Your task to perform on an android device: turn on bluetooth scan Image 0: 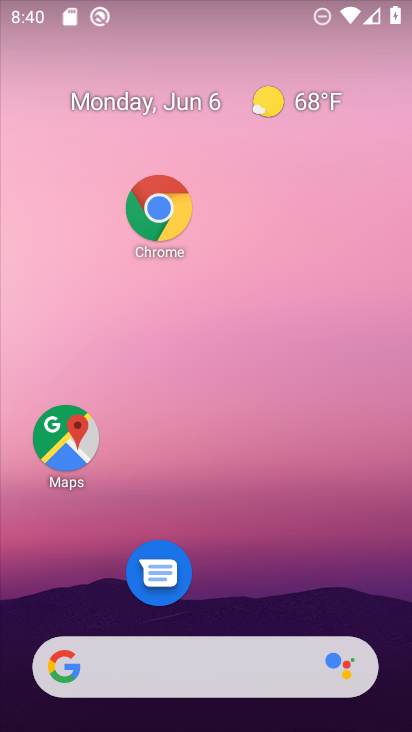
Step 0: drag from (257, 455) to (224, 240)
Your task to perform on an android device: turn on bluetooth scan Image 1: 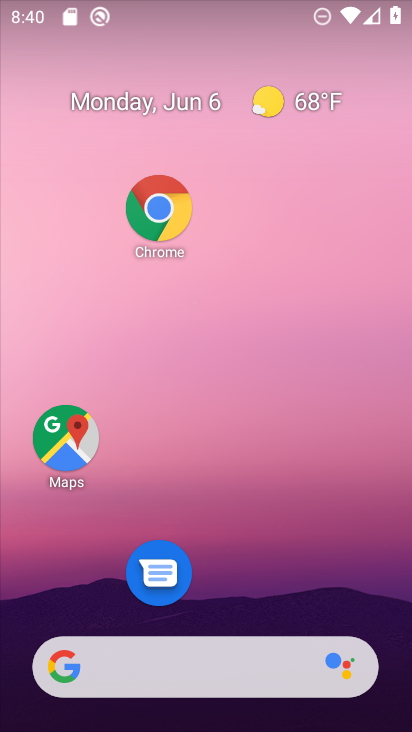
Step 1: drag from (216, 572) to (140, 205)
Your task to perform on an android device: turn on bluetooth scan Image 2: 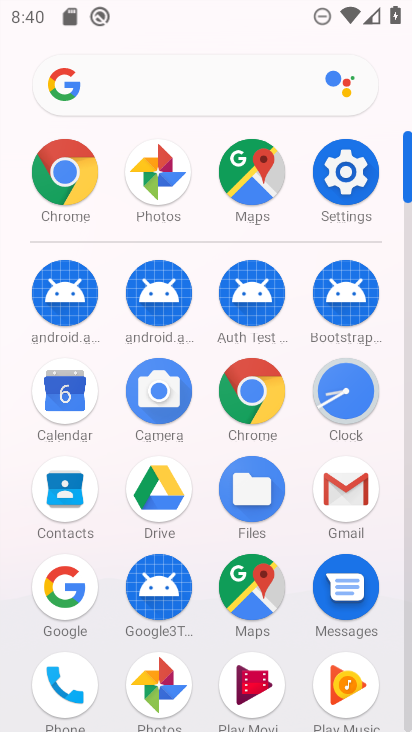
Step 2: drag from (208, 628) to (201, 257)
Your task to perform on an android device: turn on bluetooth scan Image 3: 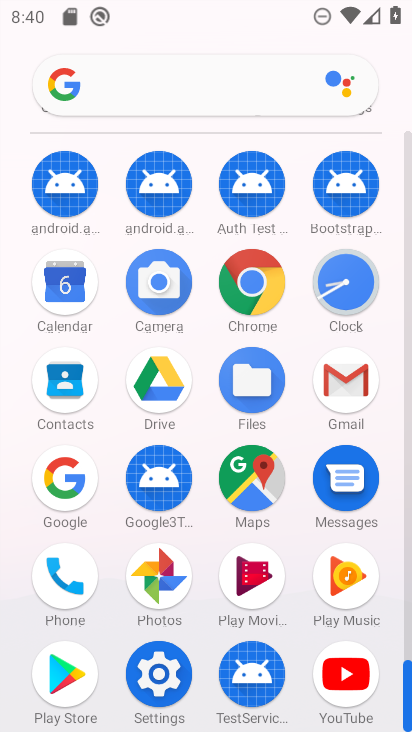
Step 3: click (156, 678)
Your task to perform on an android device: turn on bluetooth scan Image 4: 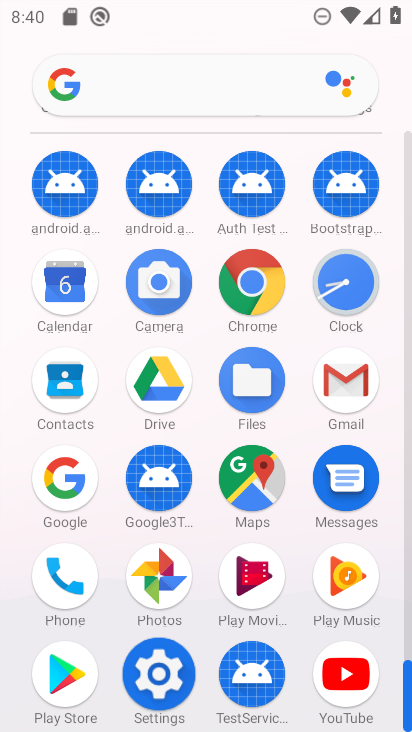
Step 4: click (157, 677)
Your task to perform on an android device: turn on bluetooth scan Image 5: 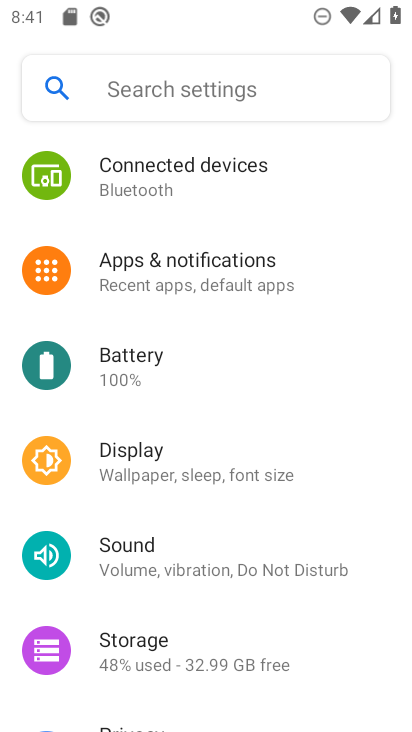
Step 5: drag from (202, 588) to (103, 180)
Your task to perform on an android device: turn on bluetooth scan Image 6: 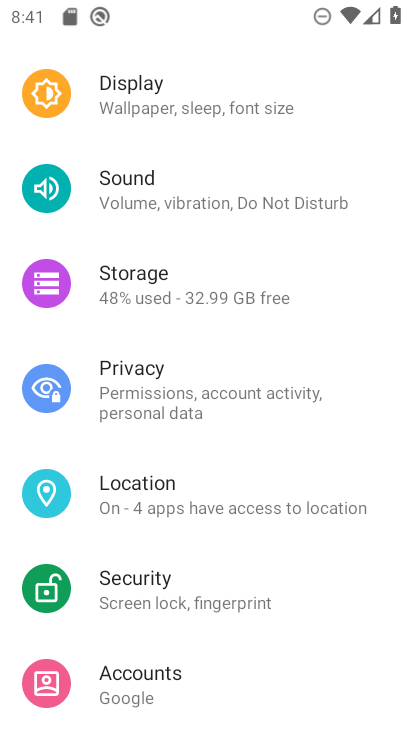
Step 6: drag from (106, 431) to (106, 50)
Your task to perform on an android device: turn on bluetooth scan Image 7: 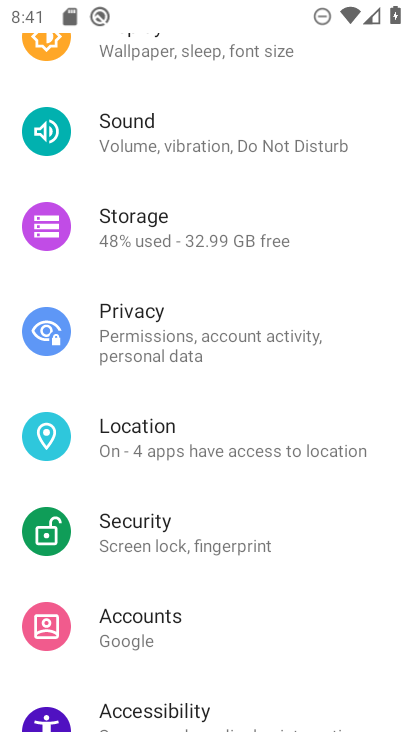
Step 7: drag from (200, 183) to (199, 598)
Your task to perform on an android device: turn on bluetooth scan Image 8: 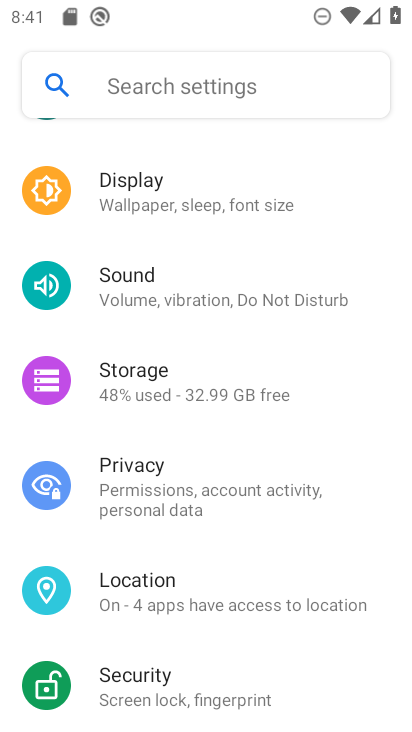
Step 8: drag from (204, 203) to (290, 603)
Your task to perform on an android device: turn on bluetooth scan Image 9: 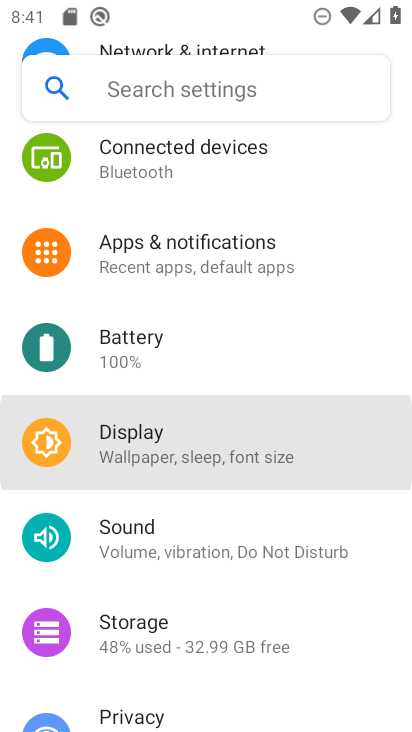
Step 9: drag from (286, 214) to (215, 722)
Your task to perform on an android device: turn on bluetooth scan Image 10: 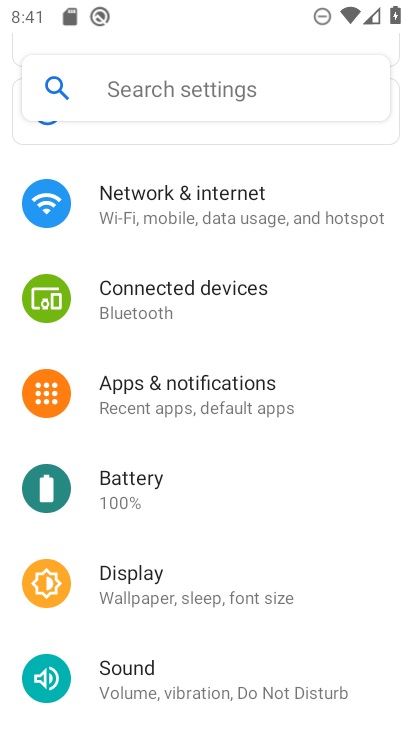
Step 10: drag from (152, 582) to (91, 234)
Your task to perform on an android device: turn on bluetooth scan Image 11: 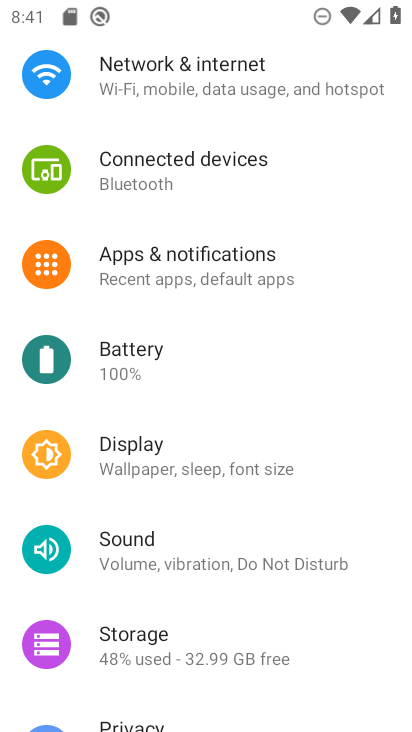
Step 11: drag from (185, 582) to (191, 142)
Your task to perform on an android device: turn on bluetooth scan Image 12: 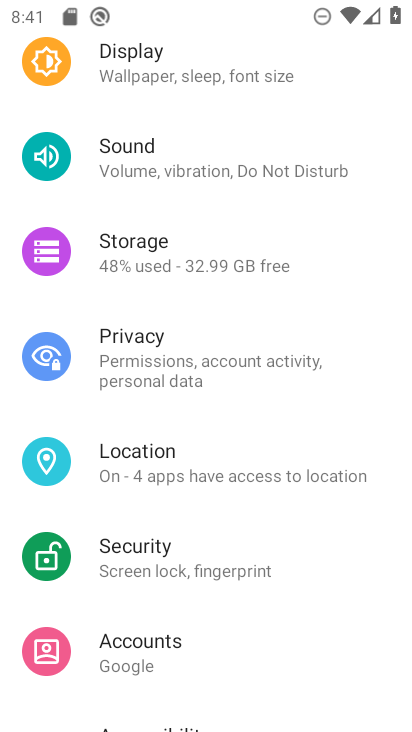
Step 12: click (168, 471)
Your task to perform on an android device: turn on bluetooth scan Image 13: 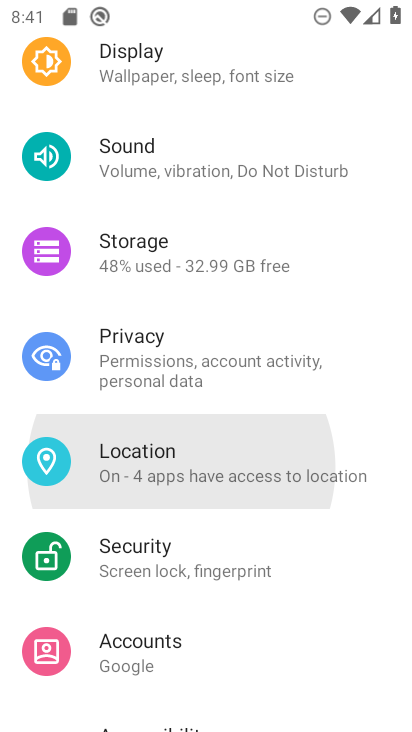
Step 13: click (168, 471)
Your task to perform on an android device: turn on bluetooth scan Image 14: 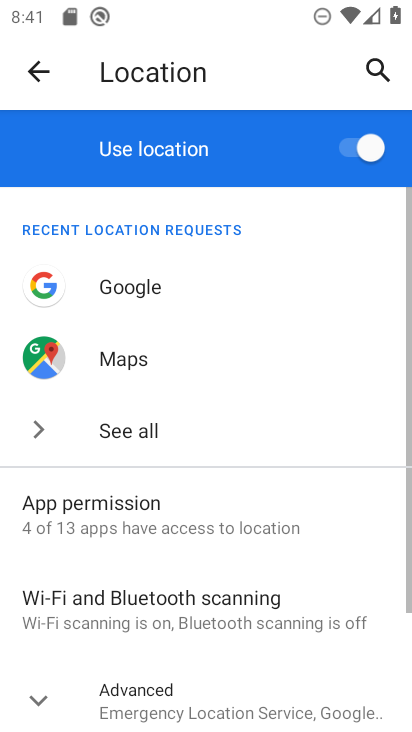
Step 14: drag from (179, 706) to (179, 189)
Your task to perform on an android device: turn on bluetooth scan Image 15: 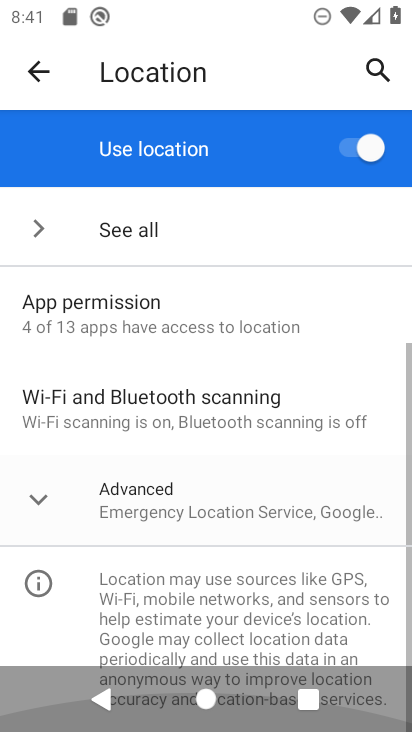
Step 15: drag from (216, 542) to (217, 304)
Your task to perform on an android device: turn on bluetooth scan Image 16: 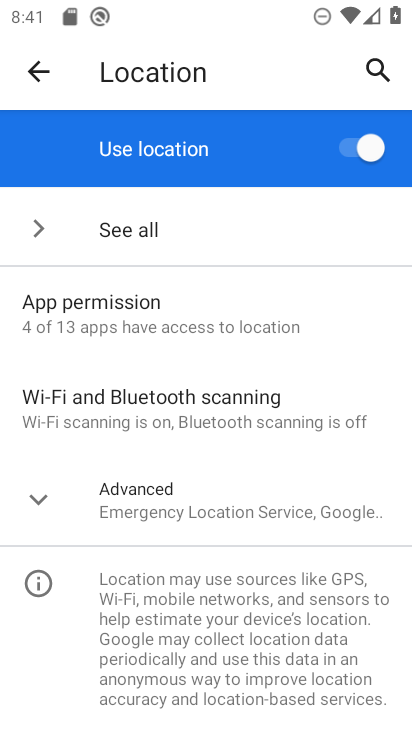
Step 16: click (153, 418)
Your task to perform on an android device: turn on bluetooth scan Image 17: 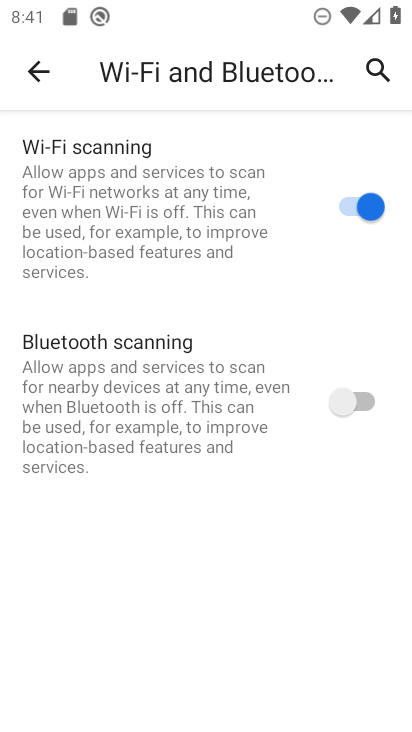
Step 17: click (344, 410)
Your task to perform on an android device: turn on bluetooth scan Image 18: 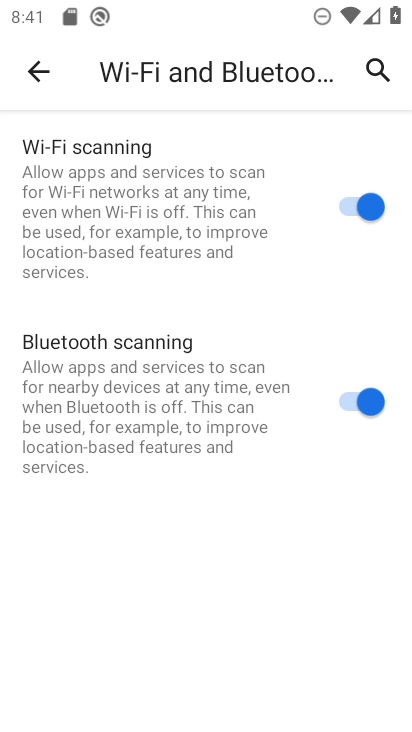
Step 18: task complete